Your task to perform on an android device: Go to Maps Image 0: 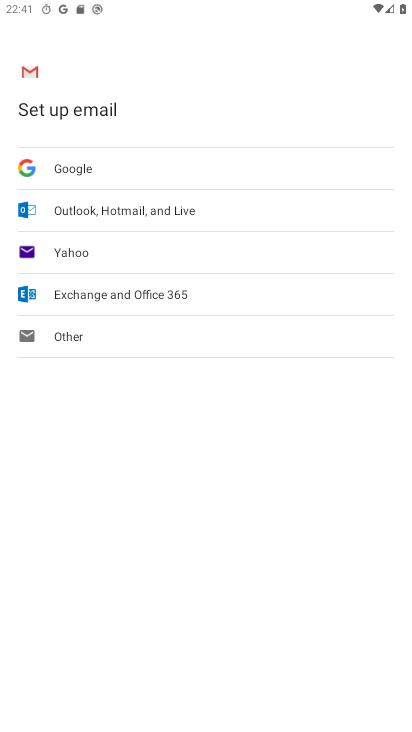
Step 0: press home button
Your task to perform on an android device: Go to Maps Image 1: 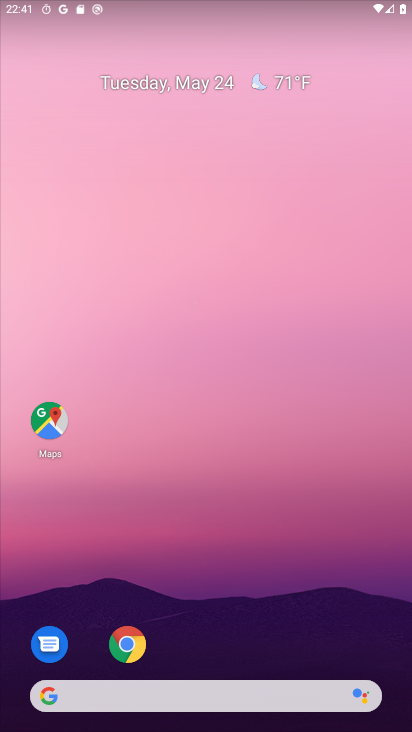
Step 1: click (45, 416)
Your task to perform on an android device: Go to Maps Image 2: 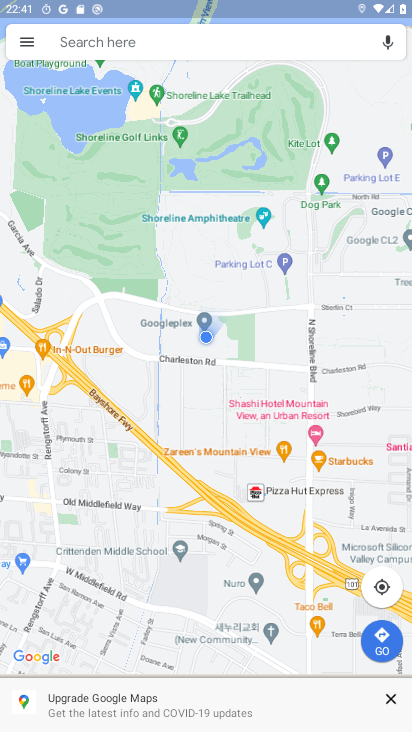
Step 2: click (24, 45)
Your task to perform on an android device: Go to Maps Image 3: 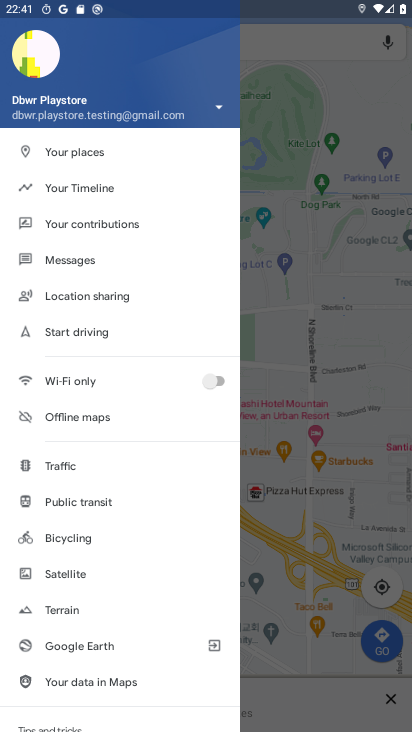
Step 3: click (305, 293)
Your task to perform on an android device: Go to Maps Image 4: 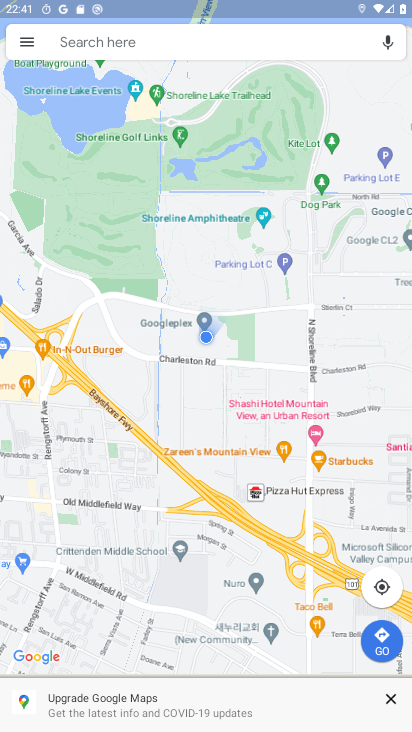
Step 4: task complete